Your task to perform on an android device: See recent photos Image 0: 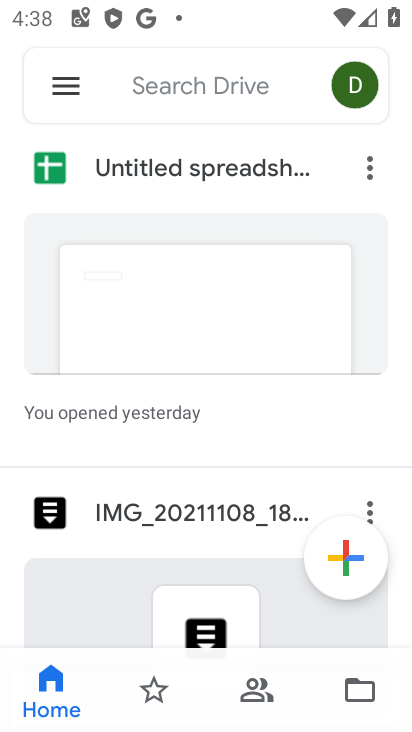
Step 0: press back button
Your task to perform on an android device: See recent photos Image 1: 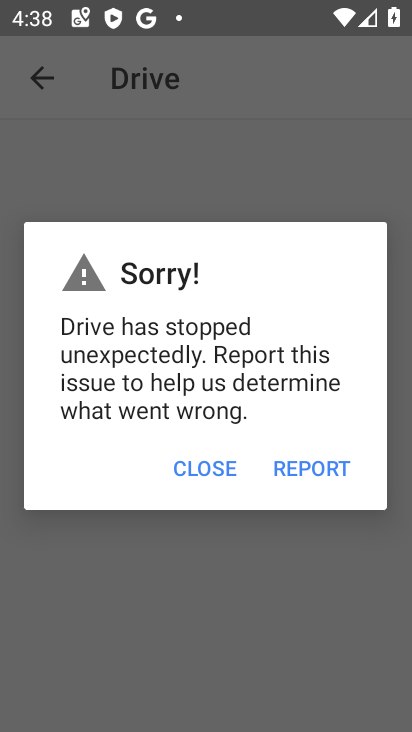
Step 1: press home button
Your task to perform on an android device: See recent photos Image 2: 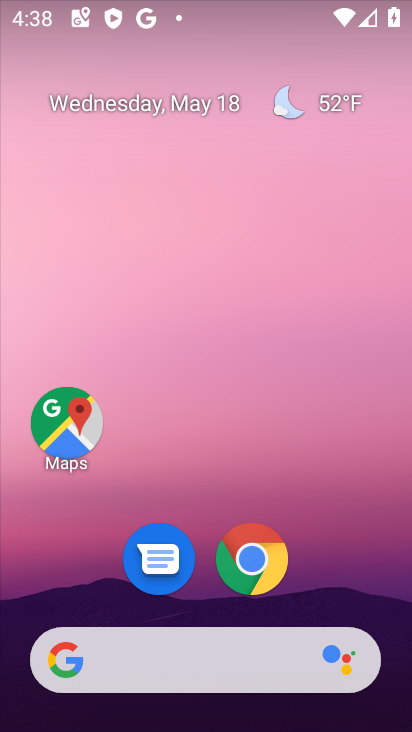
Step 2: drag from (196, 553) to (244, 51)
Your task to perform on an android device: See recent photos Image 3: 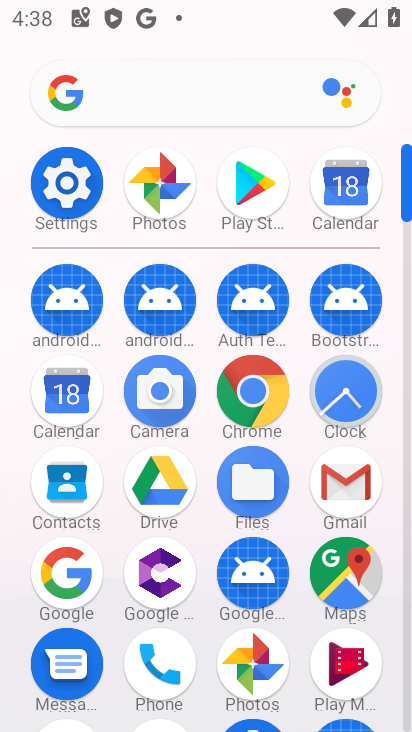
Step 3: click (269, 651)
Your task to perform on an android device: See recent photos Image 4: 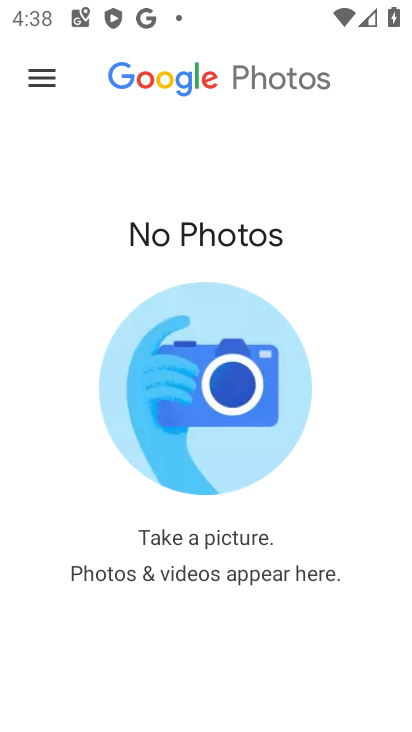
Step 4: task complete